Your task to perform on an android device: Go to privacy settings Image 0: 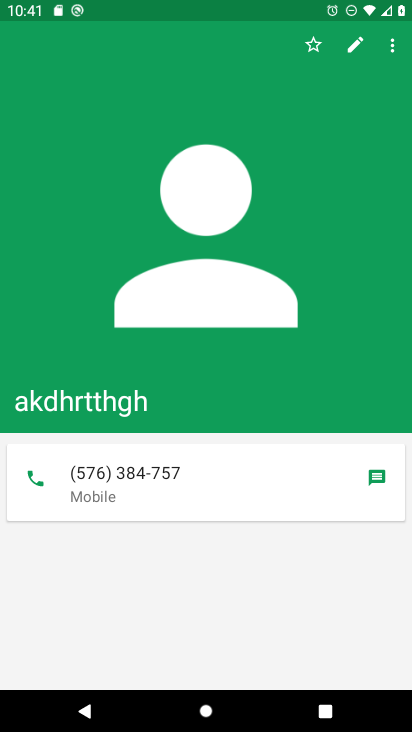
Step 0: press home button
Your task to perform on an android device: Go to privacy settings Image 1: 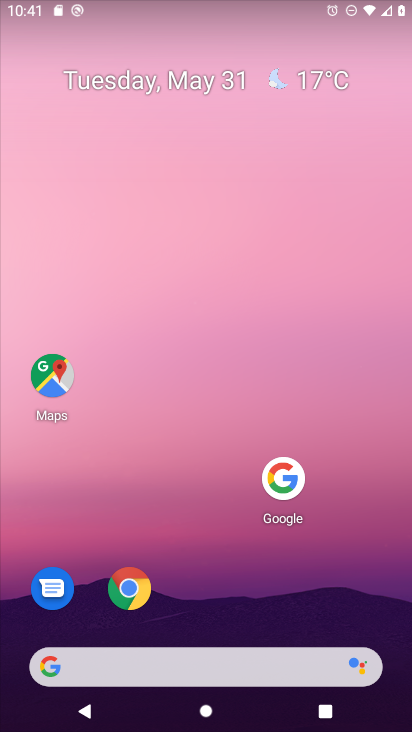
Step 1: drag from (229, 578) to (342, 112)
Your task to perform on an android device: Go to privacy settings Image 2: 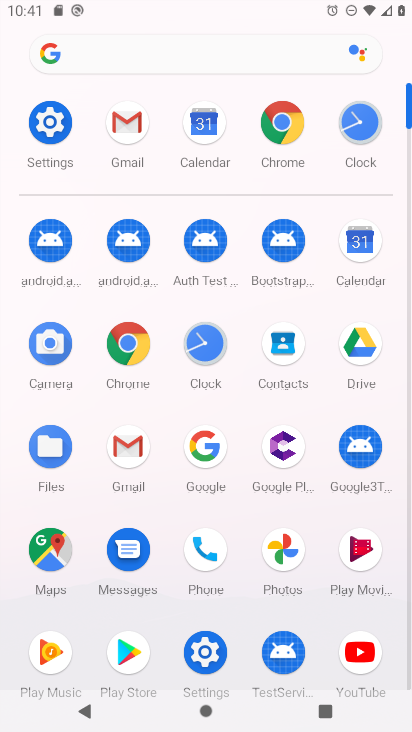
Step 2: click (51, 129)
Your task to perform on an android device: Go to privacy settings Image 3: 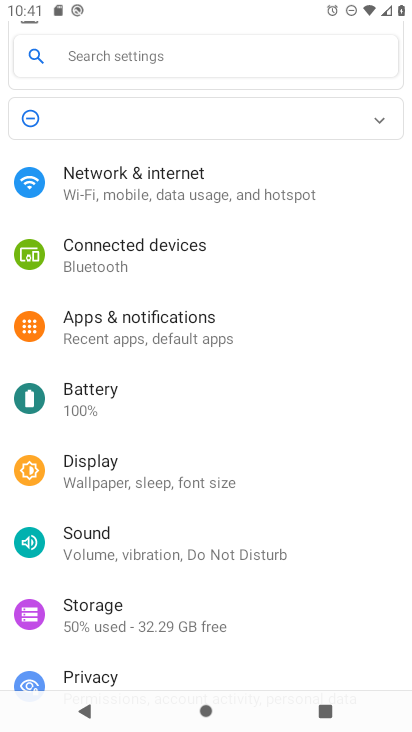
Step 3: drag from (283, 612) to (358, 176)
Your task to perform on an android device: Go to privacy settings Image 4: 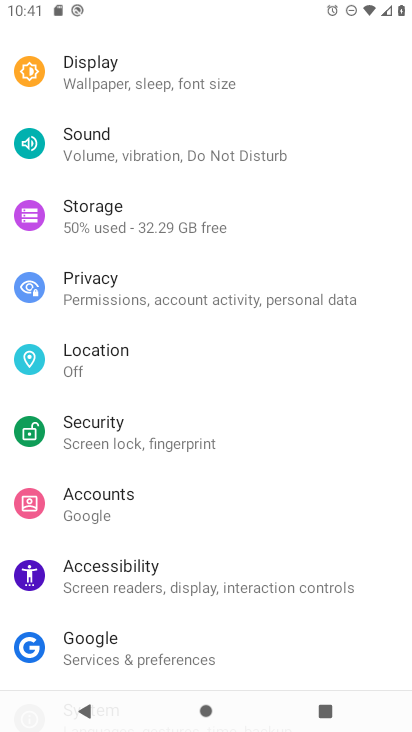
Step 4: click (67, 284)
Your task to perform on an android device: Go to privacy settings Image 5: 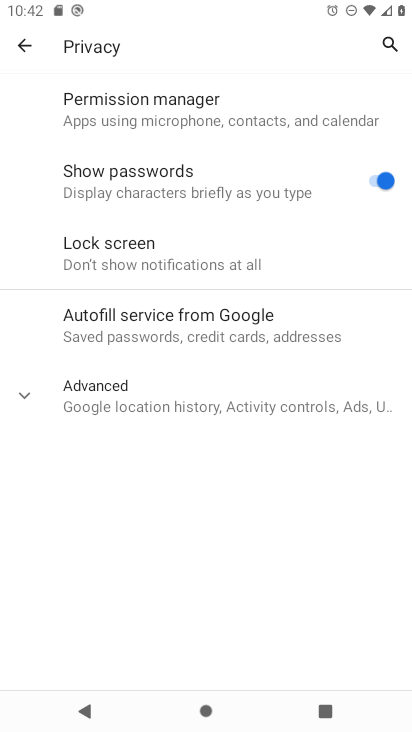
Step 5: task complete